Your task to perform on an android device: Check the best rated table lamp on Crate and Barrel Image 0: 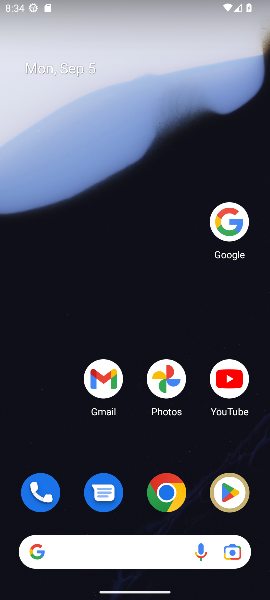
Step 0: click (230, 223)
Your task to perform on an android device: Check the best rated table lamp on Crate and Barrel Image 1: 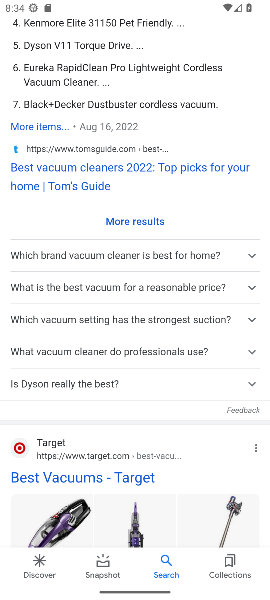
Step 1: drag from (141, 308) to (146, 487)
Your task to perform on an android device: Check the best rated table lamp on Crate and Barrel Image 2: 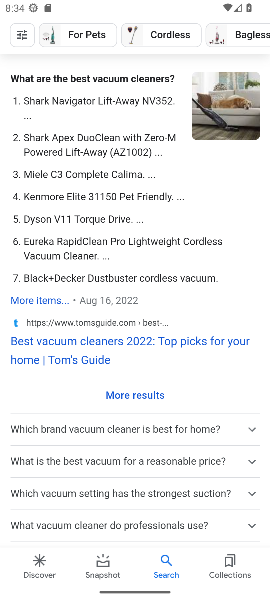
Step 2: drag from (127, 99) to (148, 540)
Your task to perform on an android device: Check the best rated table lamp on Crate and Barrel Image 3: 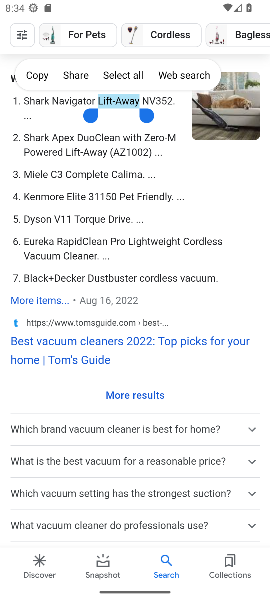
Step 3: drag from (118, 176) to (131, 487)
Your task to perform on an android device: Check the best rated table lamp on Crate and Barrel Image 4: 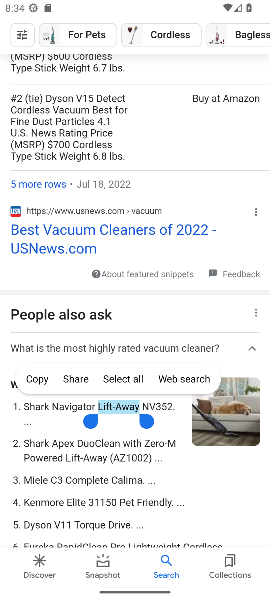
Step 4: drag from (143, 57) to (148, 571)
Your task to perform on an android device: Check the best rated table lamp on Crate and Barrel Image 5: 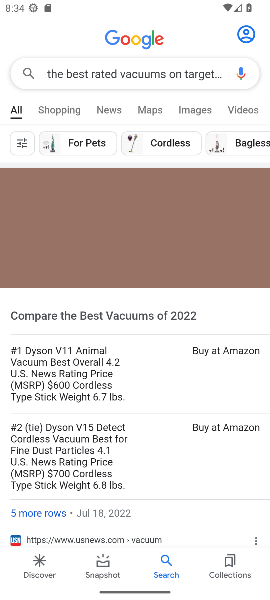
Step 5: drag from (169, 119) to (178, 396)
Your task to perform on an android device: Check the best rated table lamp on Crate and Barrel Image 6: 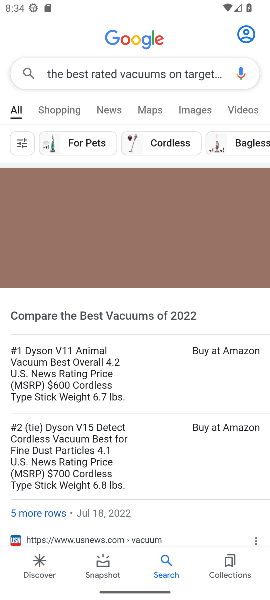
Step 6: click (175, 71)
Your task to perform on an android device: Check the best rated table lamp on Crate and Barrel Image 7: 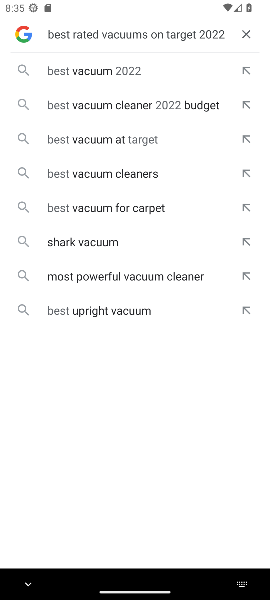
Step 7: click (254, 25)
Your task to perform on an android device: Check the best rated table lamp on Crate and Barrel Image 8: 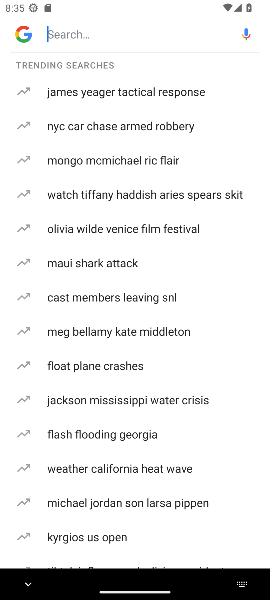
Step 8: click (121, 31)
Your task to perform on an android device: Check the best rated table lamp on Crate and Barrel Image 9: 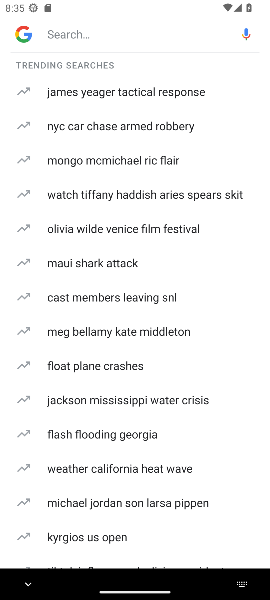
Step 9: type "best rated table lamp on Crate and Barrel "
Your task to perform on an android device: Check the best rated table lamp on Crate and Barrel Image 10: 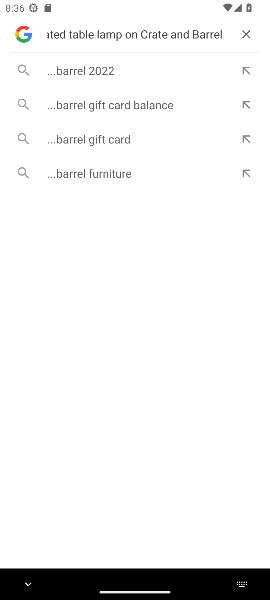
Step 10: click (105, 69)
Your task to perform on an android device: Check the best rated table lamp on Crate and Barrel Image 11: 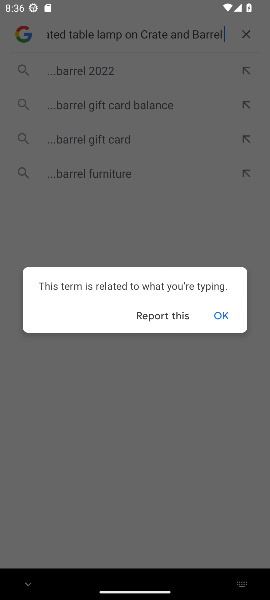
Step 11: click (221, 310)
Your task to perform on an android device: Check the best rated table lamp on Crate and Barrel Image 12: 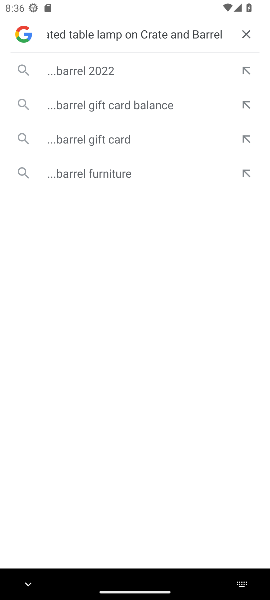
Step 12: click (81, 168)
Your task to perform on an android device: Check the best rated table lamp on Crate and Barrel Image 13: 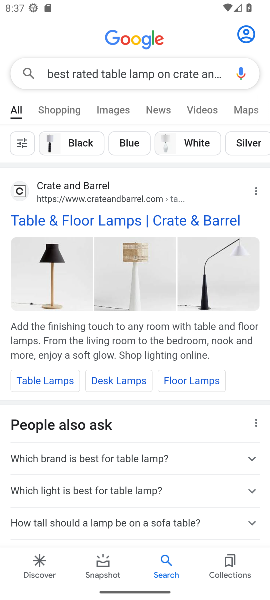
Step 13: task complete